Your task to perform on an android device: Is it going to rain tomorrow? Image 0: 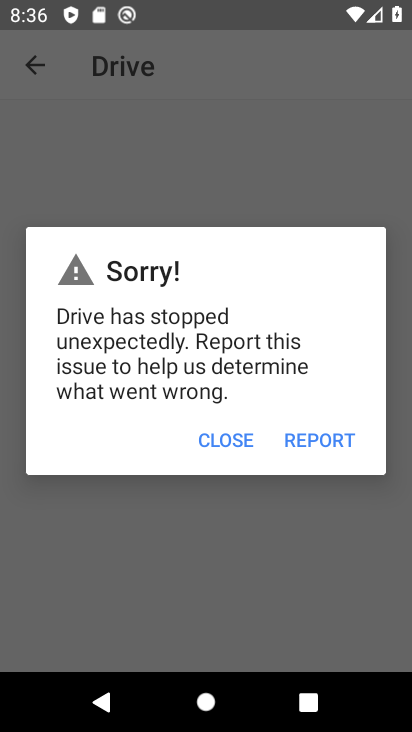
Step 0: press home button
Your task to perform on an android device: Is it going to rain tomorrow? Image 1: 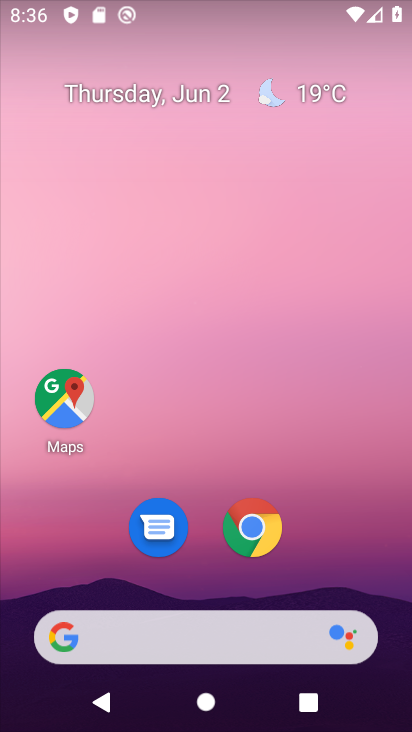
Step 1: click (298, 624)
Your task to perform on an android device: Is it going to rain tomorrow? Image 2: 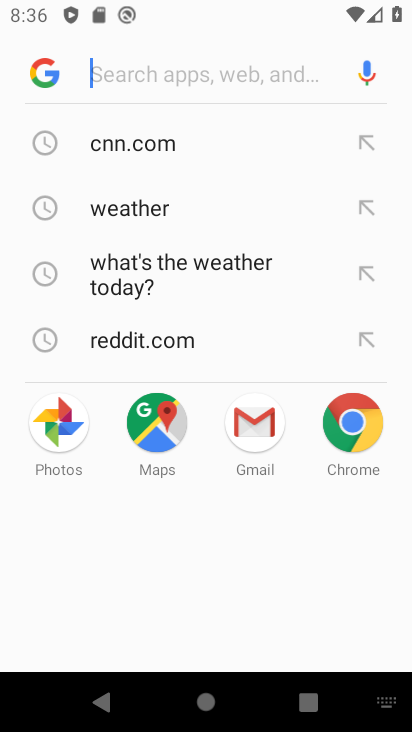
Step 2: type "Is it going to rain tomorrow?"
Your task to perform on an android device: Is it going to rain tomorrow? Image 3: 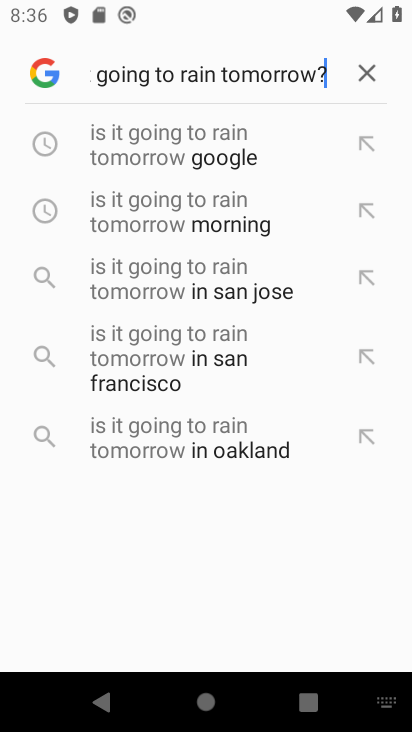
Step 3: click (243, 160)
Your task to perform on an android device: Is it going to rain tomorrow? Image 4: 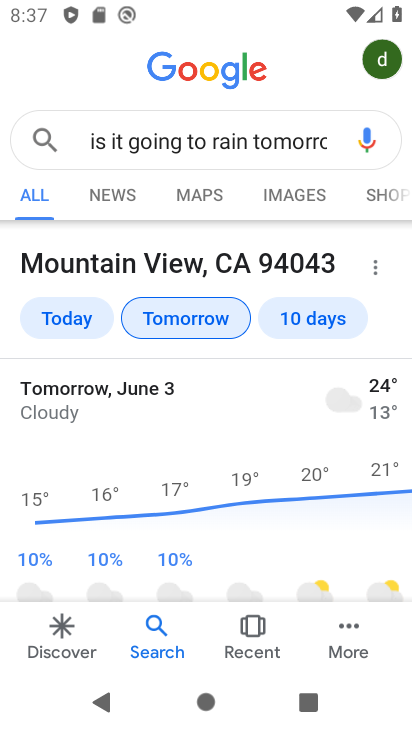
Step 4: task complete